Your task to perform on an android device: turn on javascript in the chrome app Image 0: 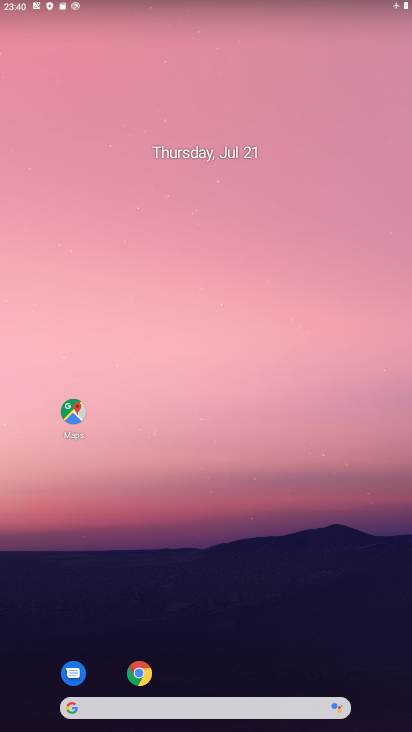
Step 0: click (135, 672)
Your task to perform on an android device: turn on javascript in the chrome app Image 1: 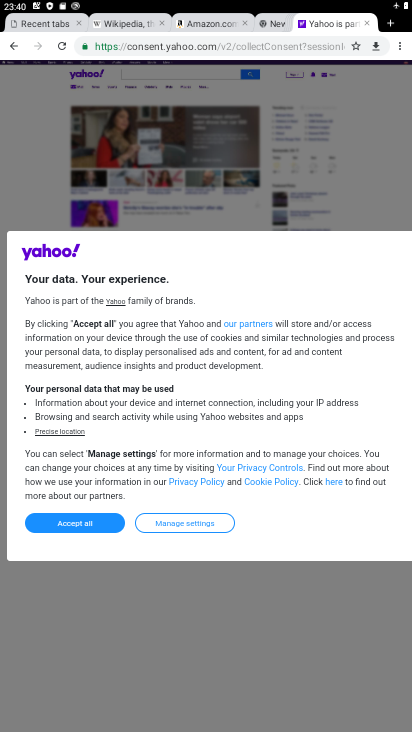
Step 1: click (407, 41)
Your task to perform on an android device: turn on javascript in the chrome app Image 2: 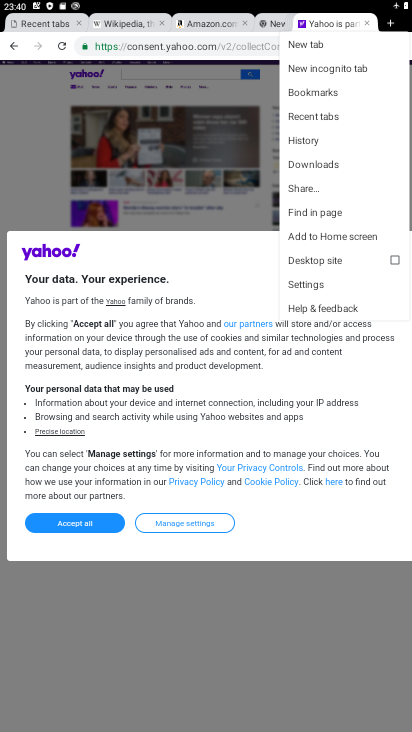
Step 2: click (330, 291)
Your task to perform on an android device: turn on javascript in the chrome app Image 3: 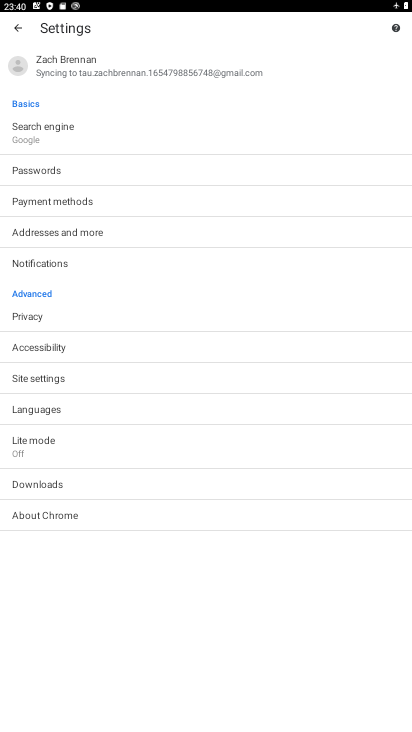
Step 3: click (70, 380)
Your task to perform on an android device: turn on javascript in the chrome app Image 4: 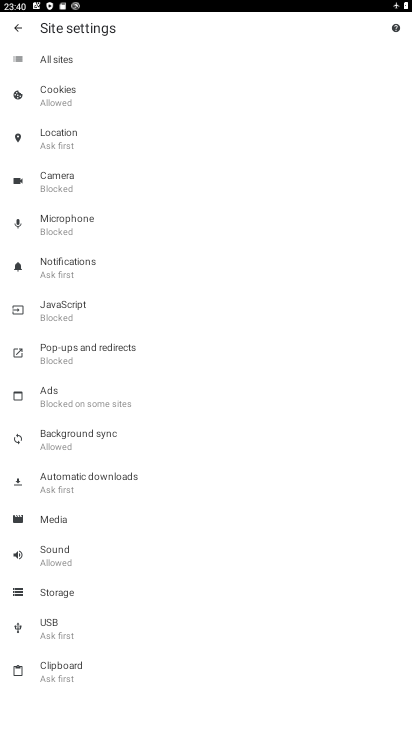
Step 4: click (101, 321)
Your task to perform on an android device: turn on javascript in the chrome app Image 5: 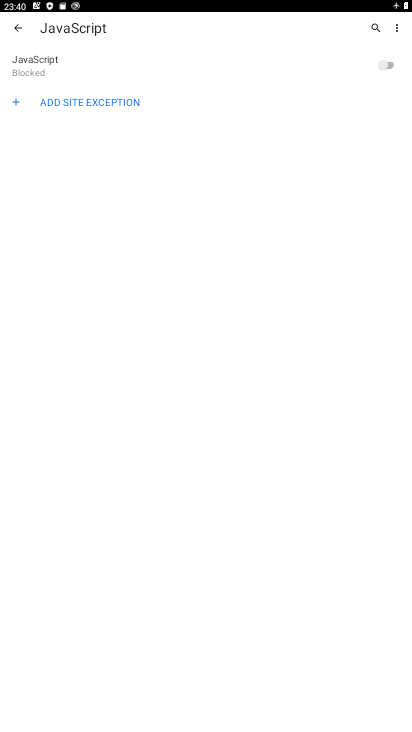
Step 5: click (386, 70)
Your task to perform on an android device: turn on javascript in the chrome app Image 6: 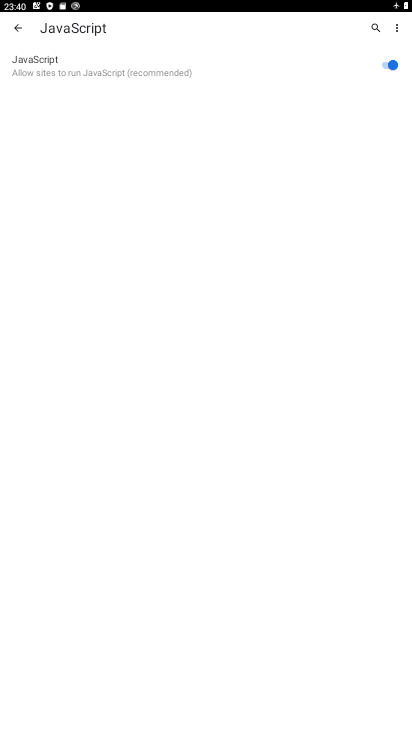
Step 6: task complete